Your task to perform on an android device: all mails in gmail Image 0: 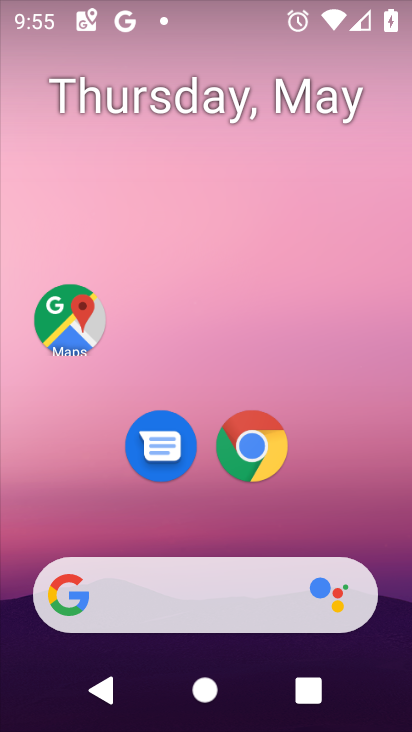
Step 0: drag from (339, 484) to (356, 80)
Your task to perform on an android device: all mails in gmail Image 1: 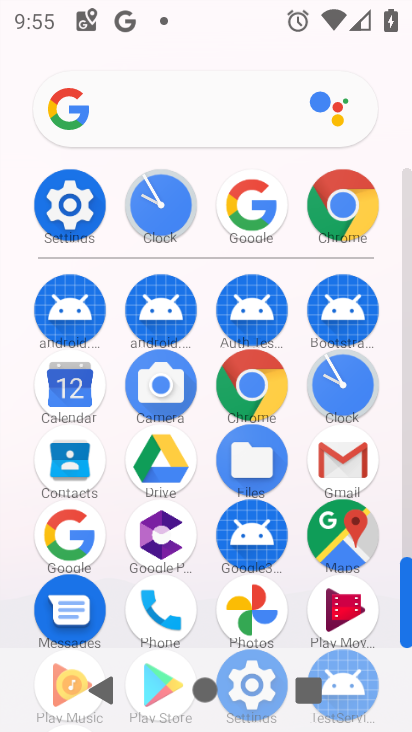
Step 1: click (356, 474)
Your task to perform on an android device: all mails in gmail Image 2: 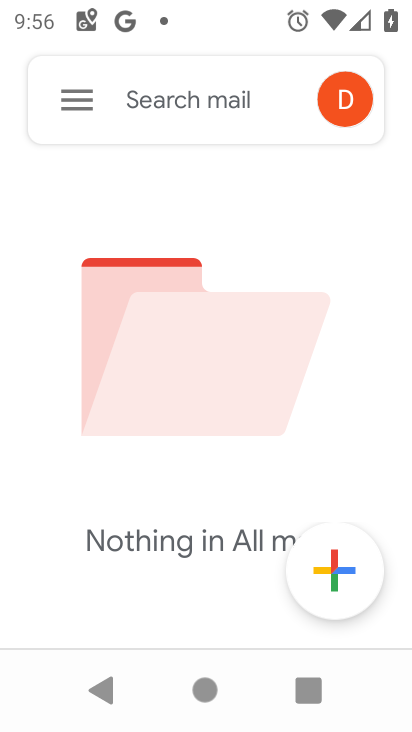
Step 2: click (72, 116)
Your task to perform on an android device: all mails in gmail Image 3: 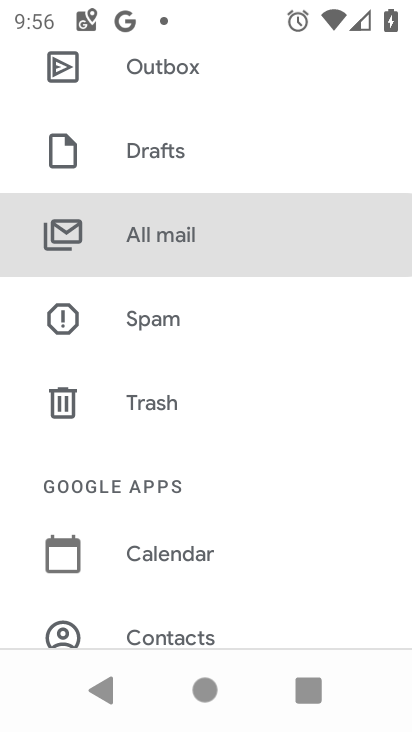
Step 3: click (176, 232)
Your task to perform on an android device: all mails in gmail Image 4: 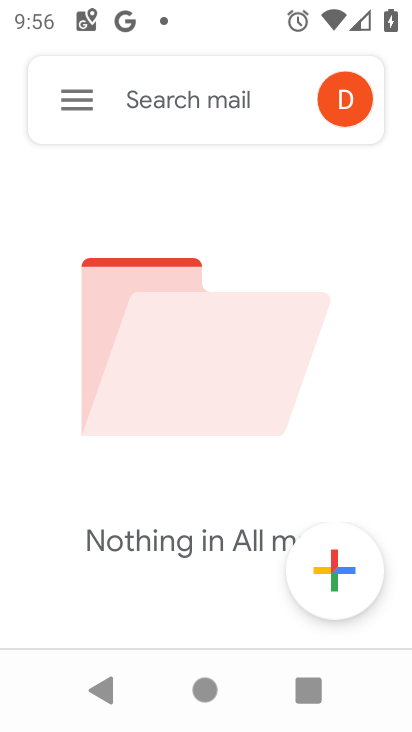
Step 4: task complete